Your task to perform on an android device: Show me the alarms in the clock app Image 0: 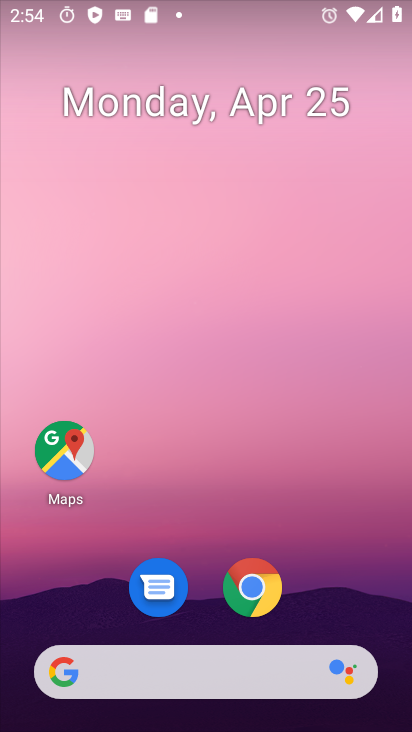
Step 0: drag from (364, 551) to (328, 100)
Your task to perform on an android device: Show me the alarms in the clock app Image 1: 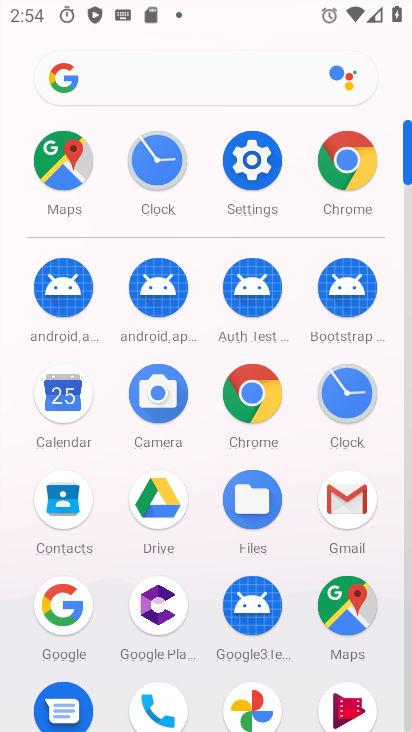
Step 1: click (341, 392)
Your task to perform on an android device: Show me the alarms in the clock app Image 2: 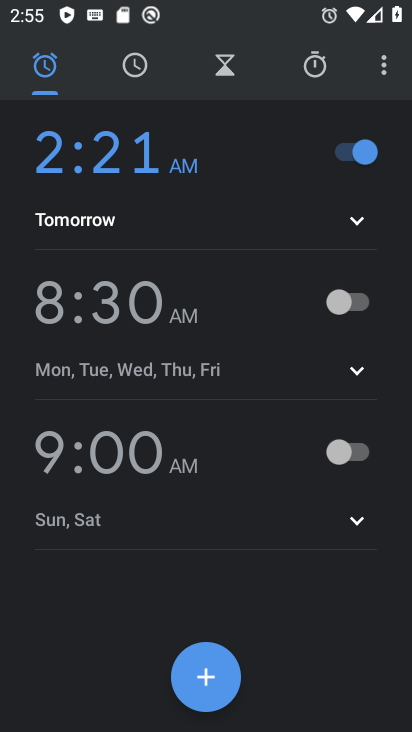
Step 2: task complete